Your task to perform on an android device: Open the stopwatch Image 0: 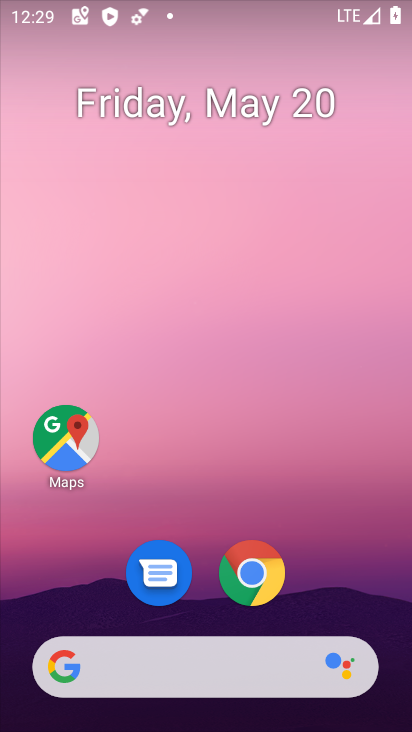
Step 0: drag from (212, 537) to (248, 114)
Your task to perform on an android device: Open the stopwatch Image 1: 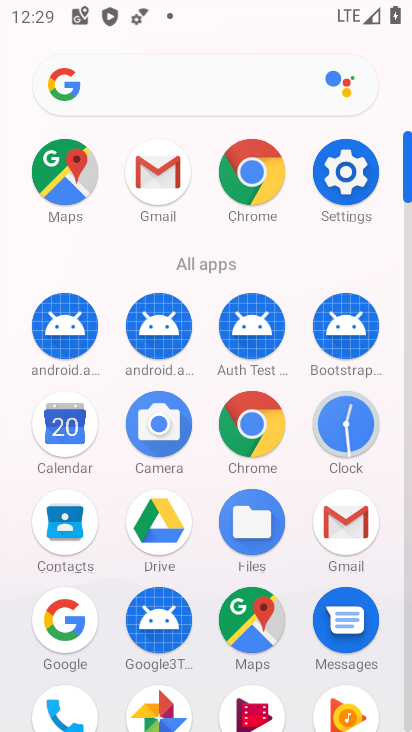
Step 1: click (368, 185)
Your task to perform on an android device: Open the stopwatch Image 2: 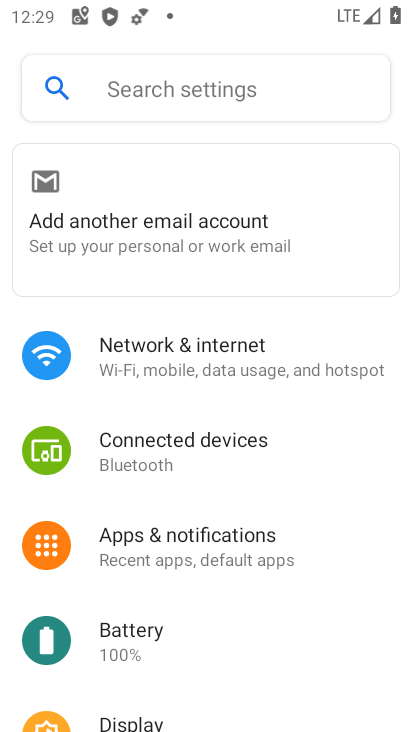
Step 2: press home button
Your task to perform on an android device: Open the stopwatch Image 3: 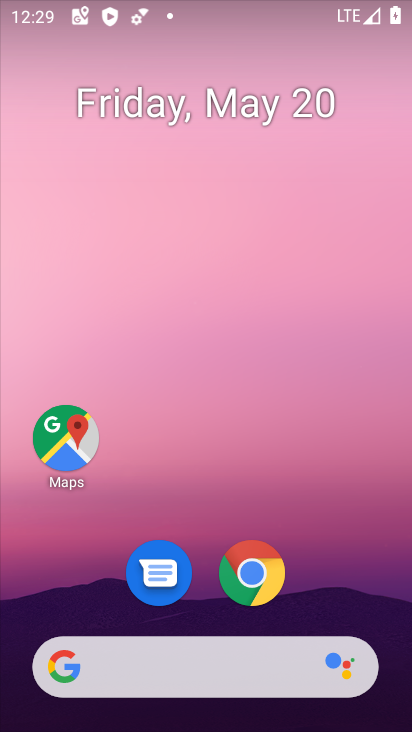
Step 3: drag from (187, 583) to (218, 63)
Your task to perform on an android device: Open the stopwatch Image 4: 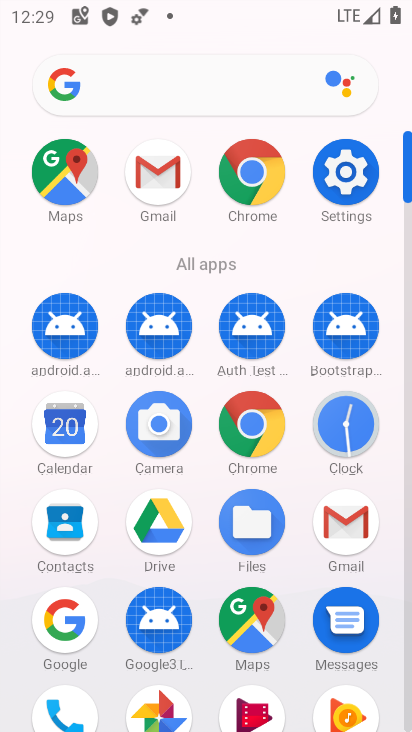
Step 4: click (344, 434)
Your task to perform on an android device: Open the stopwatch Image 5: 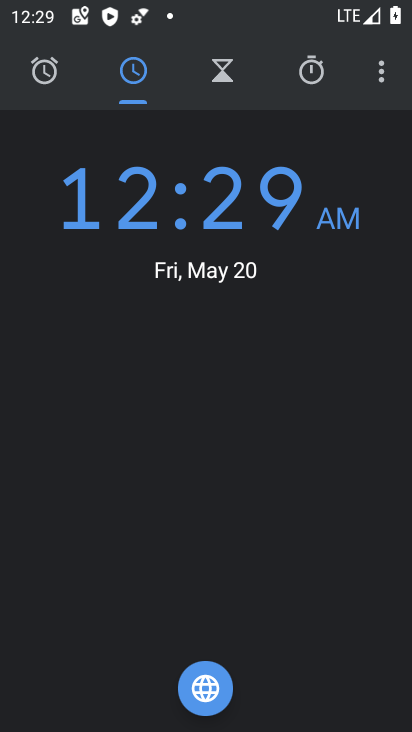
Step 5: click (320, 73)
Your task to perform on an android device: Open the stopwatch Image 6: 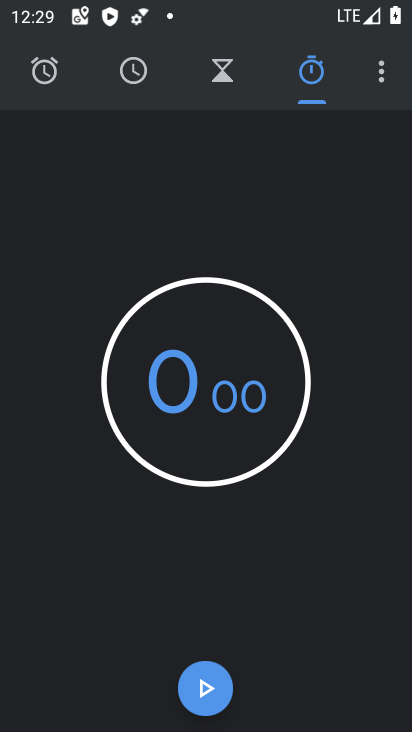
Step 6: click (200, 679)
Your task to perform on an android device: Open the stopwatch Image 7: 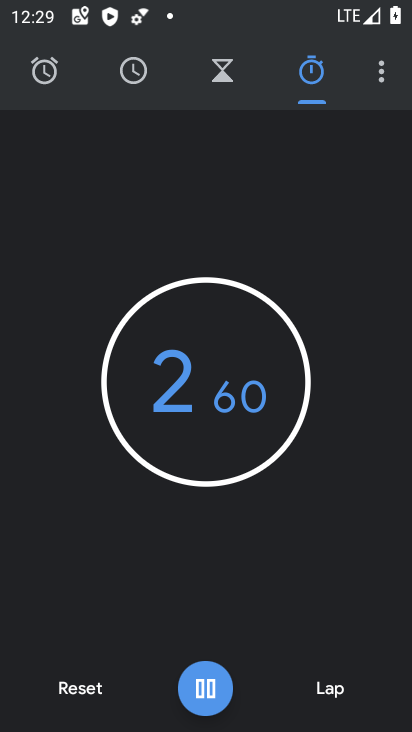
Step 7: task complete